Your task to perform on an android device: Go to settings Image 0: 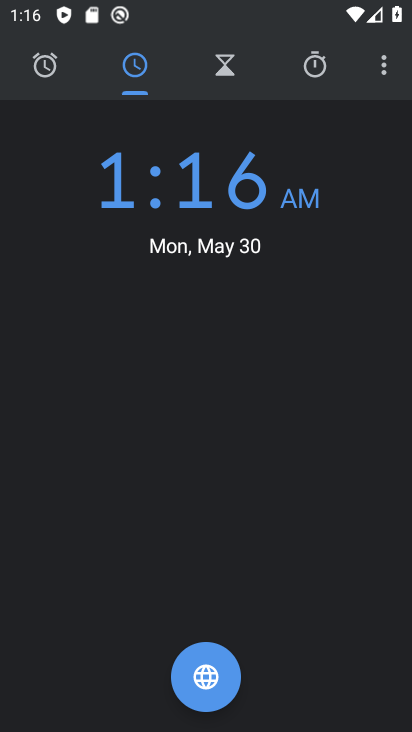
Step 0: press home button
Your task to perform on an android device: Go to settings Image 1: 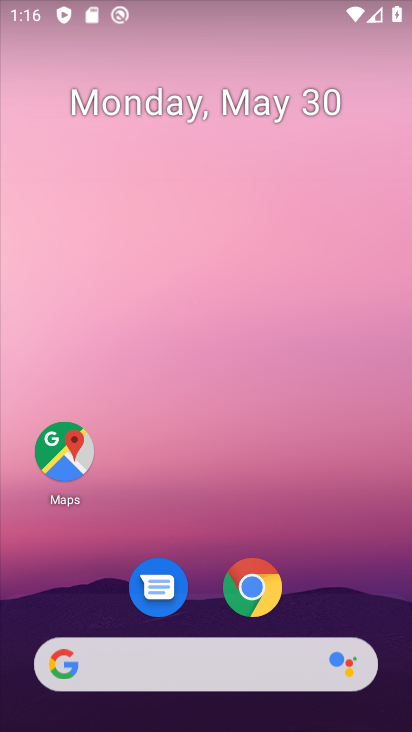
Step 1: drag from (114, 723) to (138, 44)
Your task to perform on an android device: Go to settings Image 2: 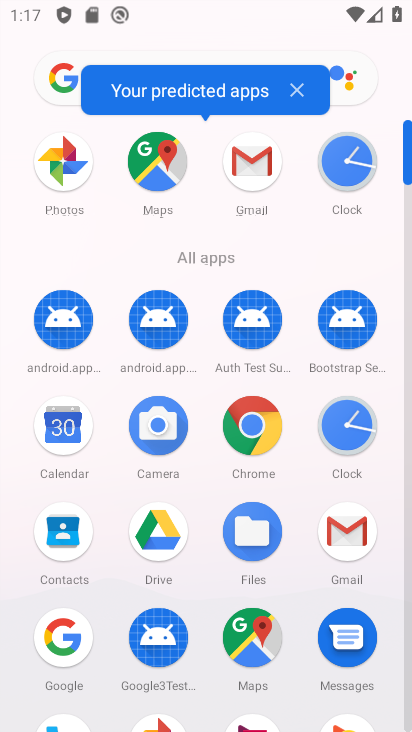
Step 2: drag from (114, 587) to (91, 298)
Your task to perform on an android device: Go to settings Image 3: 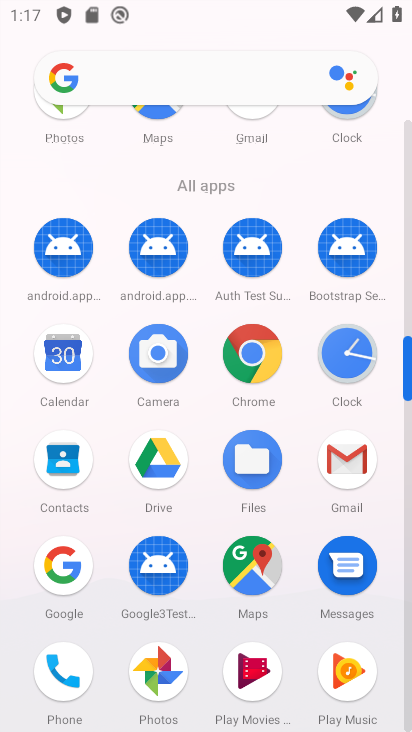
Step 3: drag from (107, 589) to (102, 198)
Your task to perform on an android device: Go to settings Image 4: 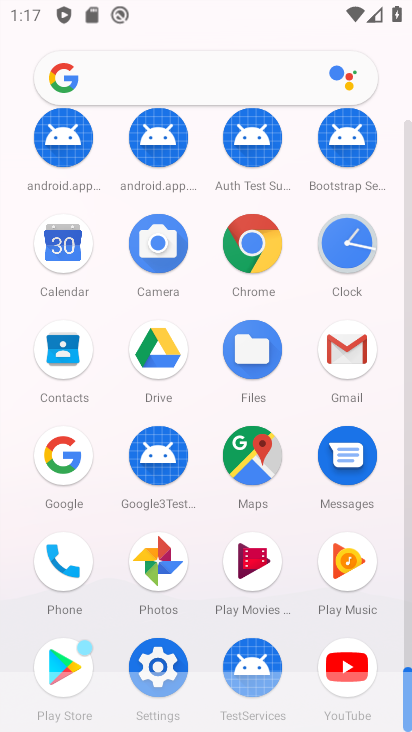
Step 4: click (147, 658)
Your task to perform on an android device: Go to settings Image 5: 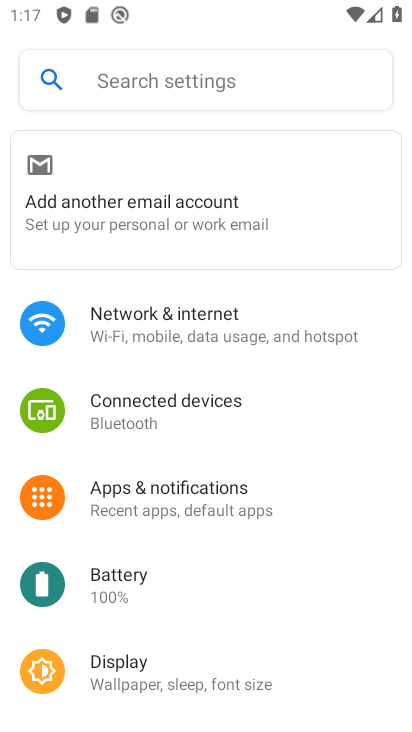
Step 5: task complete